Your task to perform on an android device: Open location settings Image 0: 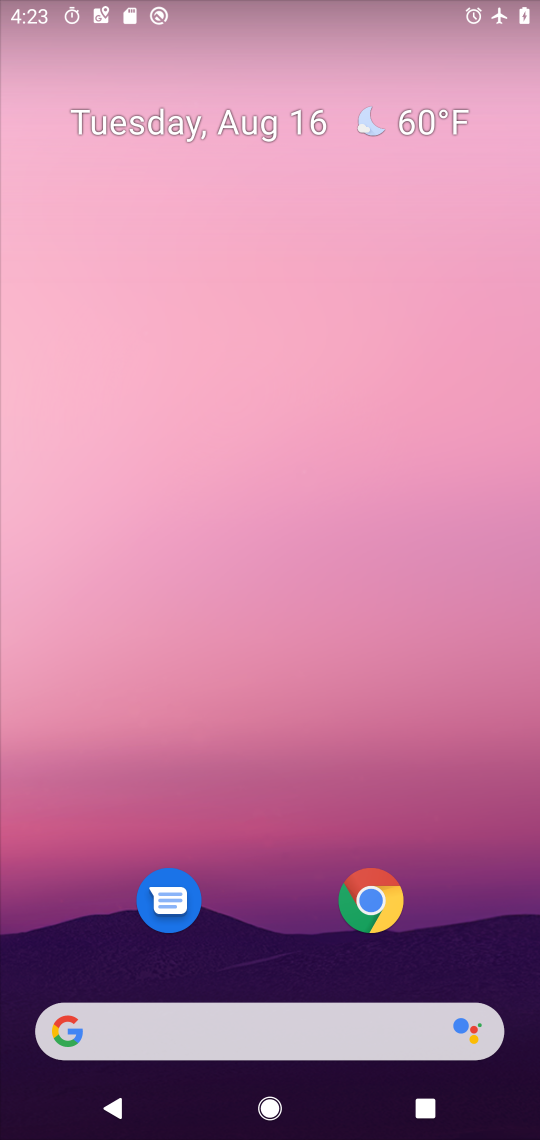
Step 0: drag from (296, 971) to (154, 75)
Your task to perform on an android device: Open location settings Image 1: 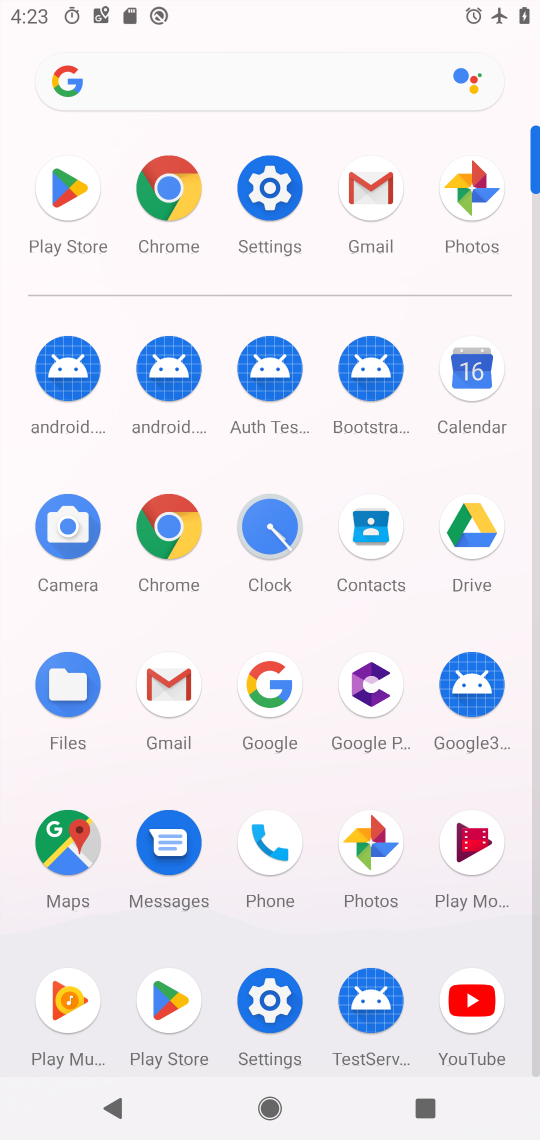
Step 1: click (271, 183)
Your task to perform on an android device: Open location settings Image 2: 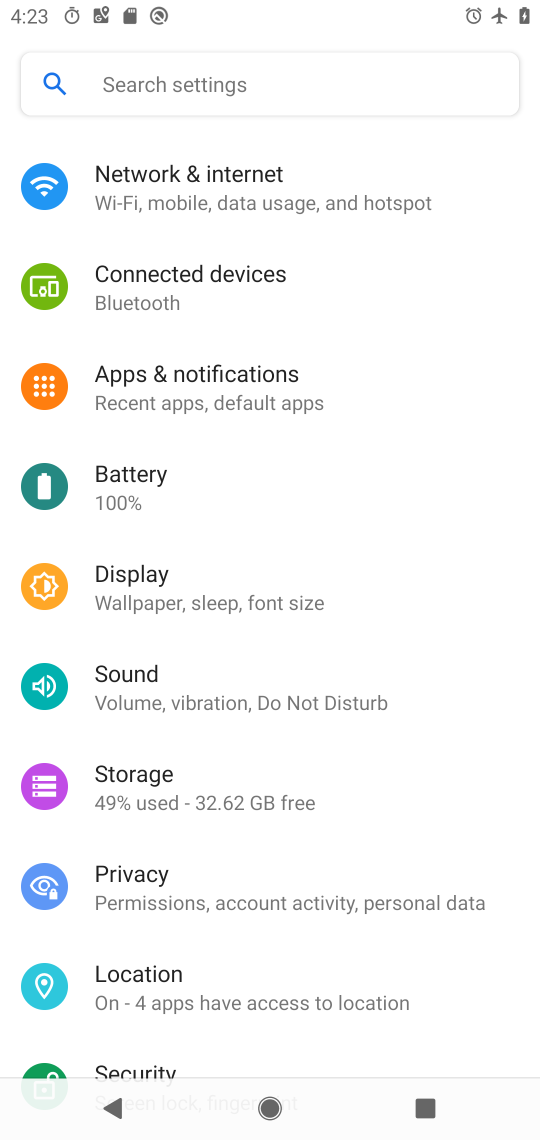
Step 2: click (131, 982)
Your task to perform on an android device: Open location settings Image 3: 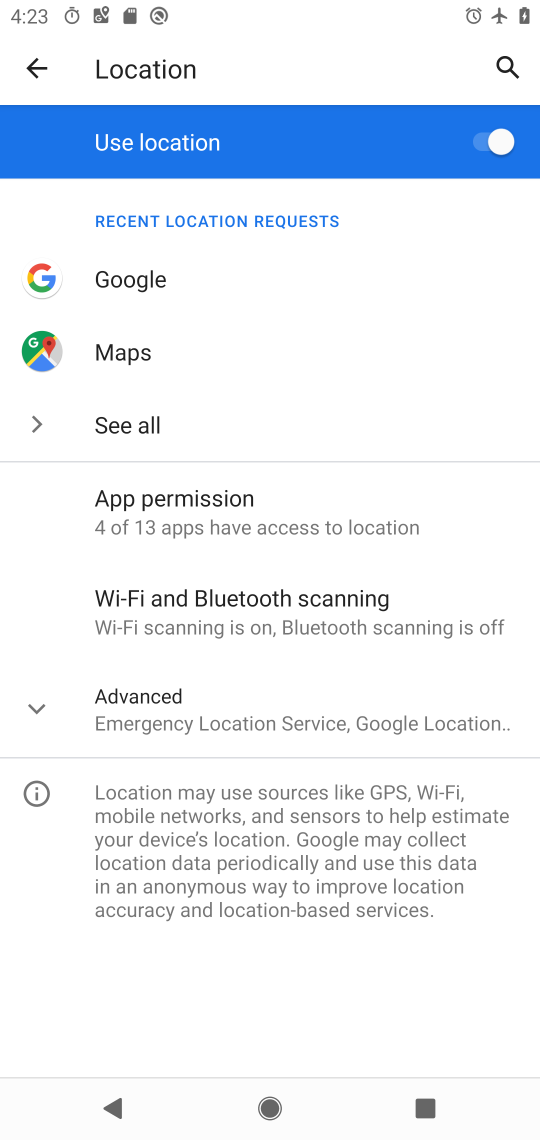
Step 3: task complete